Your task to perform on an android device: What's on my calendar tomorrow? Image 0: 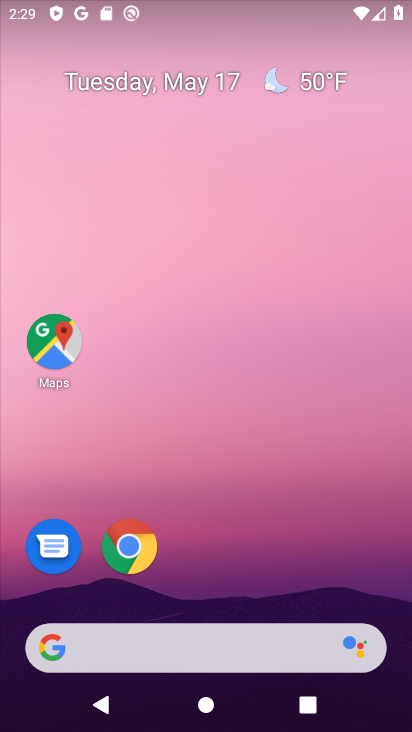
Step 0: drag from (221, 494) to (286, 7)
Your task to perform on an android device: What's on my calendar tomorrow? Image 1: 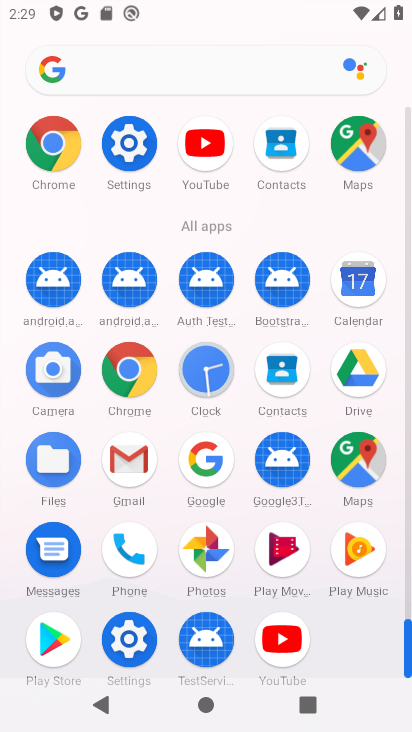
Step 1: click (372, 300)
Your task to perform on an android device: What's on my calendar tomorrow? Image 2: 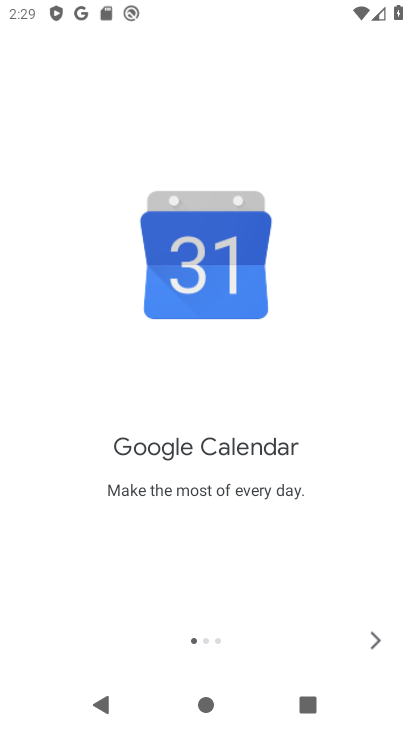
Step 2: click (373, 641)
Your task to perform on an android device: What's on my calendar tomorrow? Image 3: 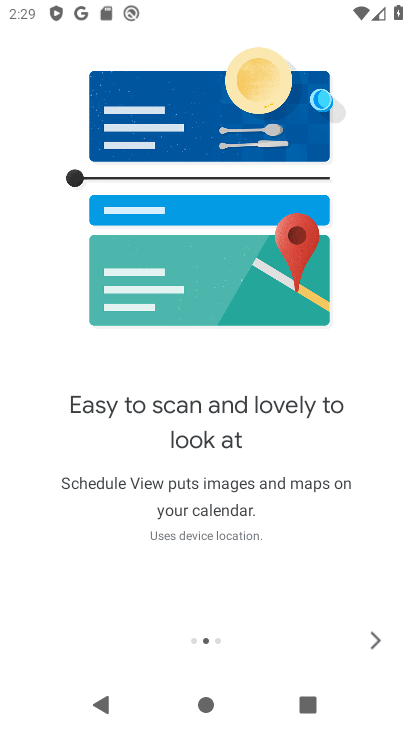
Step 3: click (373, 641)
Your task to perform on an android device: What's on my calendar tomorrow? Image 4: 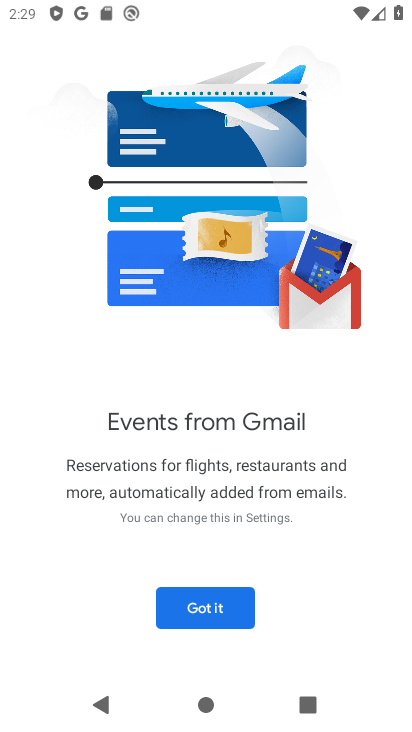
Step 4: click (210, 609)
Your task to perform on an android device: What's on my calendar tomorrow? Image 5: 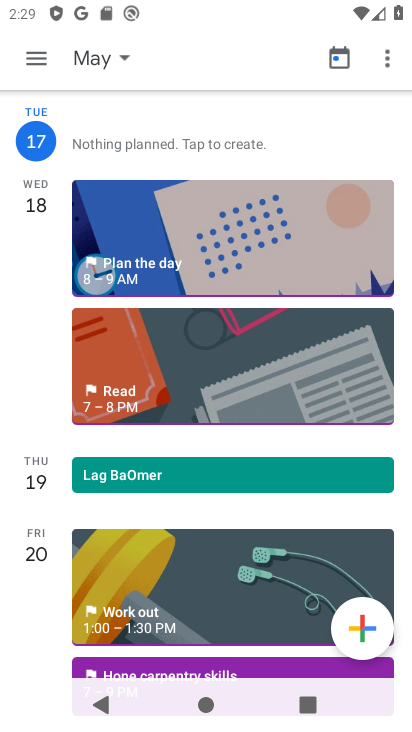
Step 5: click (30, 63)
Your task to perform on an android device: What's on my calendar tomorrow? Image 6: 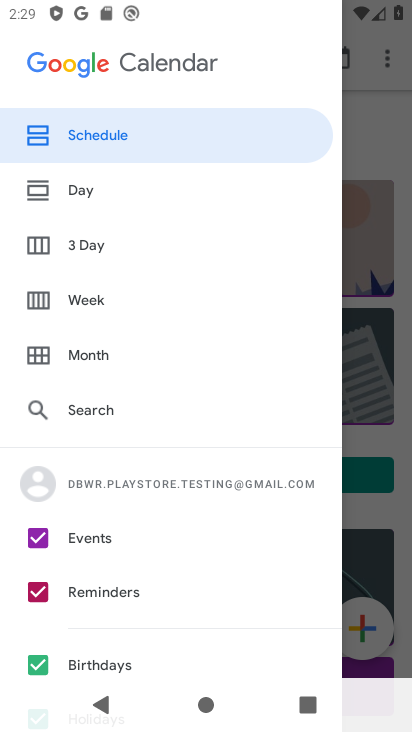
Step 6: click (96, 247)
Your task to perform on an android device: What's on my calendar tomorrow? Image 7: 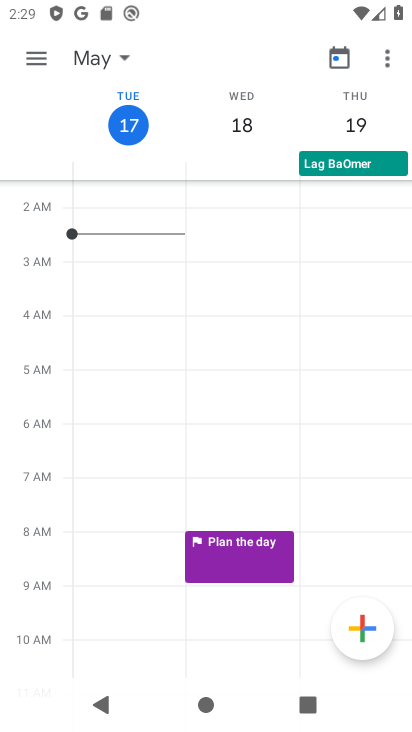
Step 7: task complete